Your task to perform on an android device: open device folders in google photos Image 0: 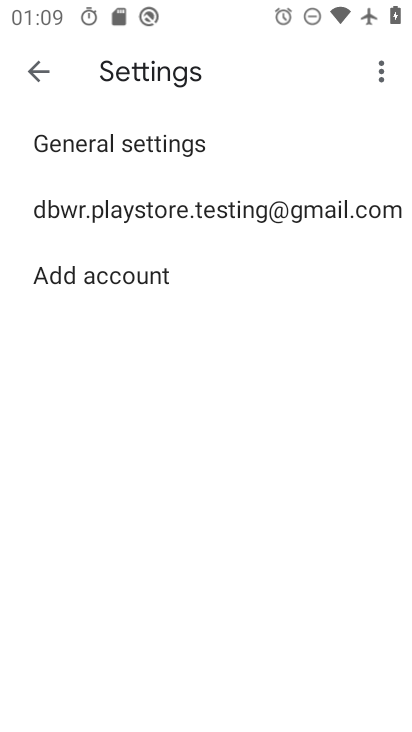
Step 0: press home button
Your task to perform on an android device: open device folders in google photos Image 1: 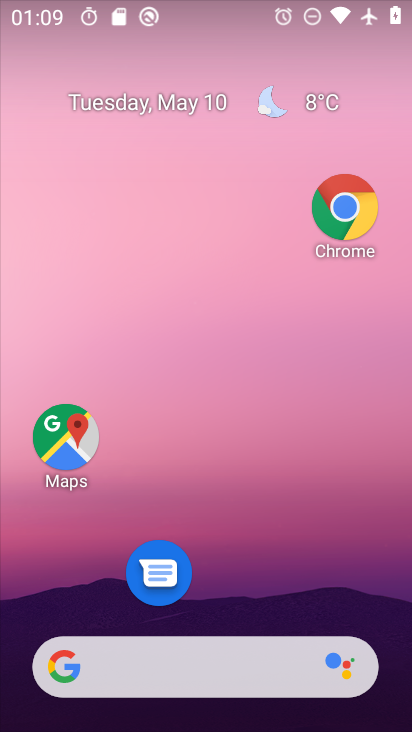
Step 1: drag from (235, 582) to (218, 109)
Your task to perform on an android device: open device folders in google photos Image 2: 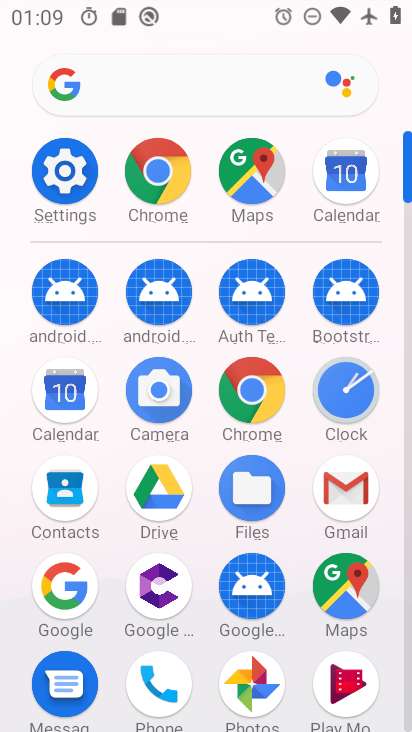
Step 2: click (256, 687)
Your task to perform on an android device: open device folders in google photos Image 3: 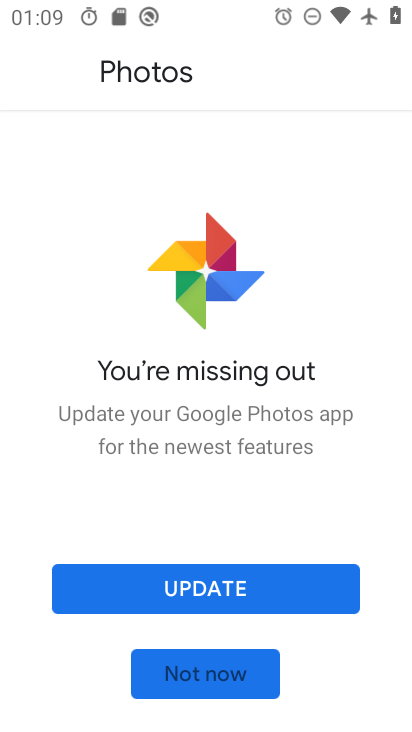
Step 3: click (223, 680)
Your task to perform on an android device: open device folders in google photos Image 4: 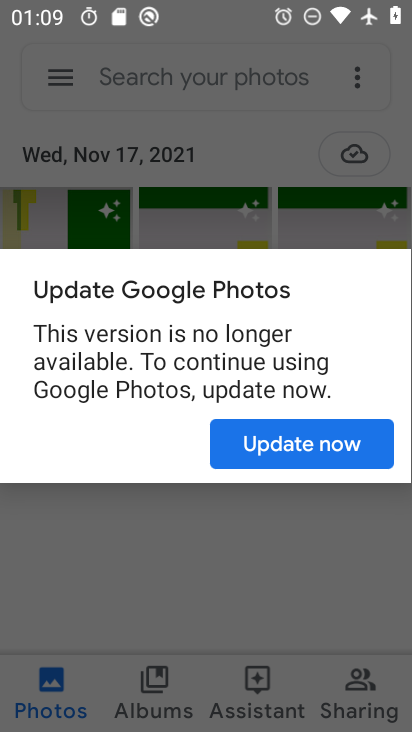
Step 4: click (305, 446)
Your task to perform on an android device: open device folders in google photos Image 5: 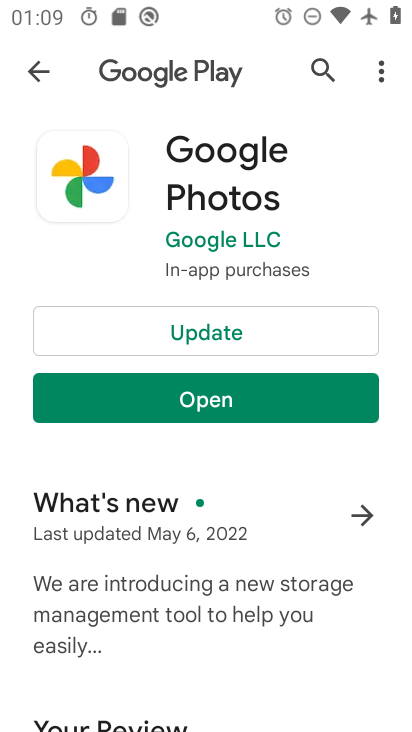
Step 5: click (261, 327)
Your task to perform on an android device: open device folders in google photos Image 6: 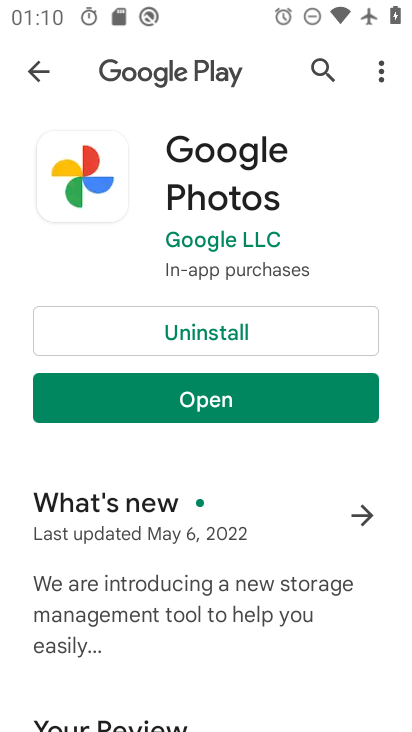
Step 6: task complete